Your task to perform on an android device: change the clock style Image 0: 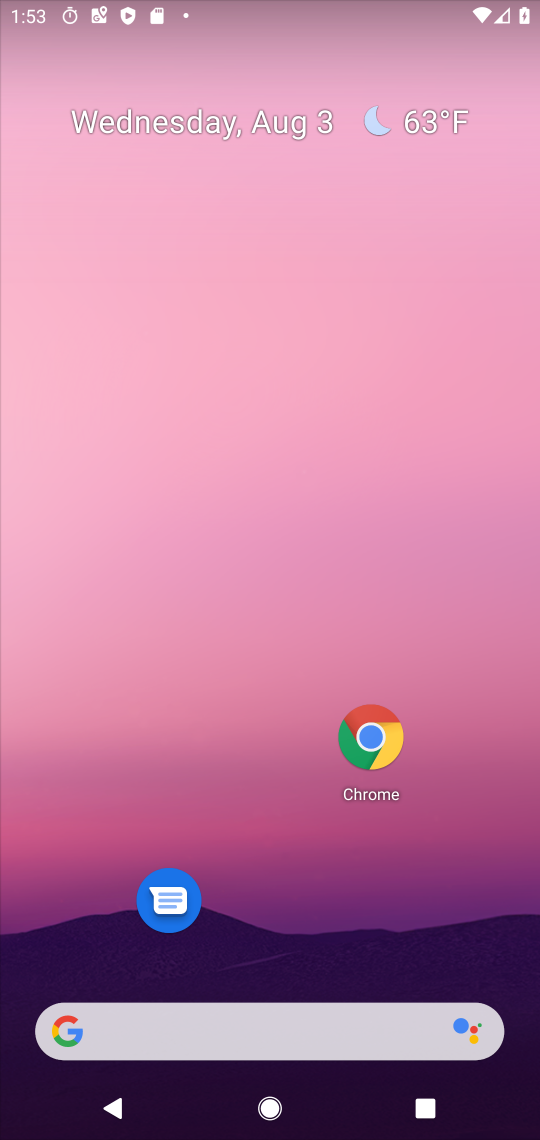
Step 0: click (371, 753)
Your task to perform on an android device: change the clock style Image 1: 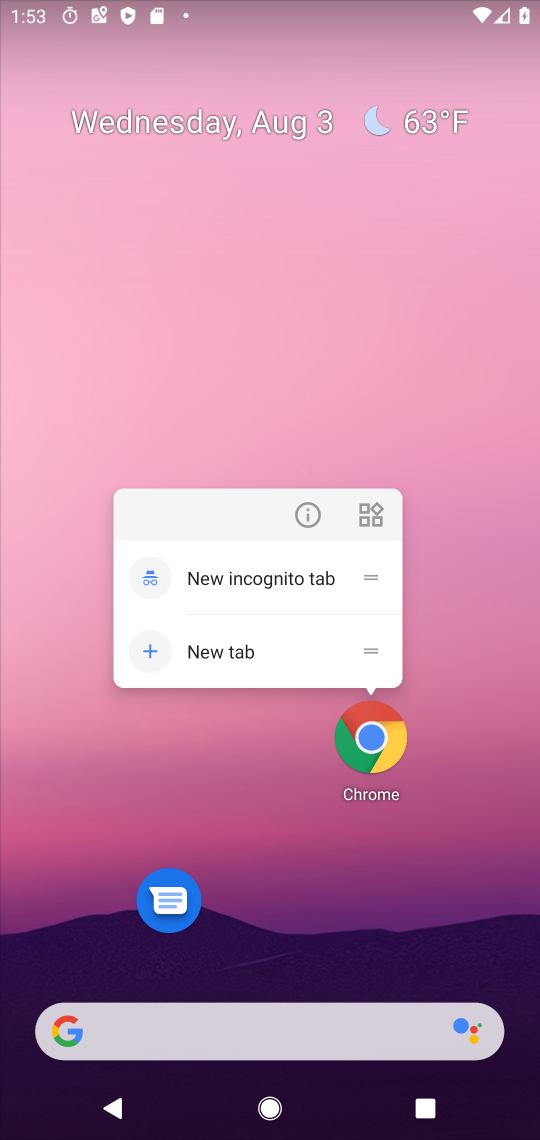
Step 1: click (340, 844)
Your task to perform on an android device: change the clock style Image 2: 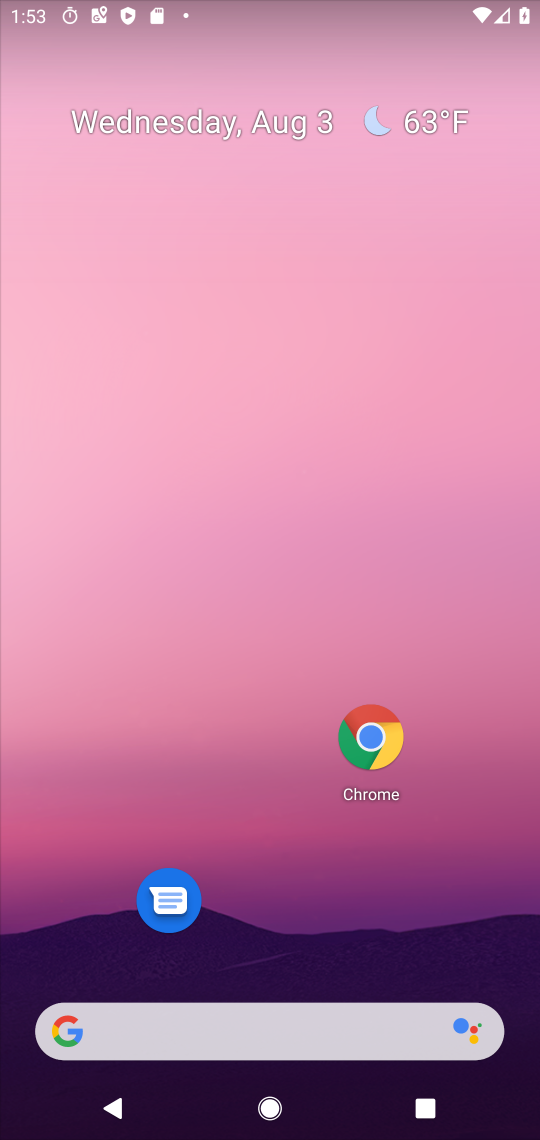
Step 2: drag from (240, 834) to (282, 199)
Your task to perform on an android device: change the clock style Image 3: 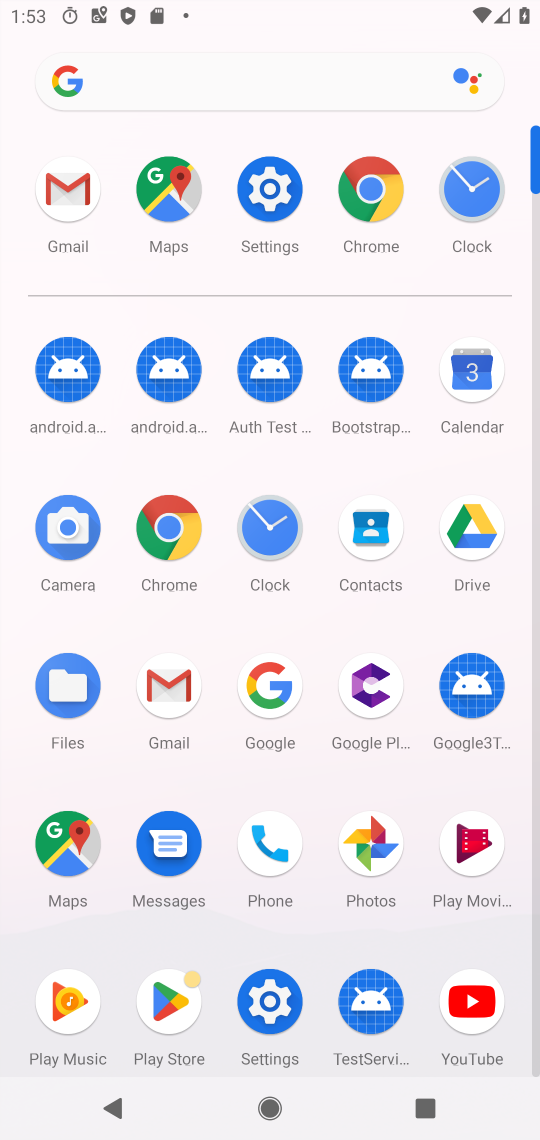
Step 3: click (268, 521)
Your task to perform on an android device: change the clock style Image 4: 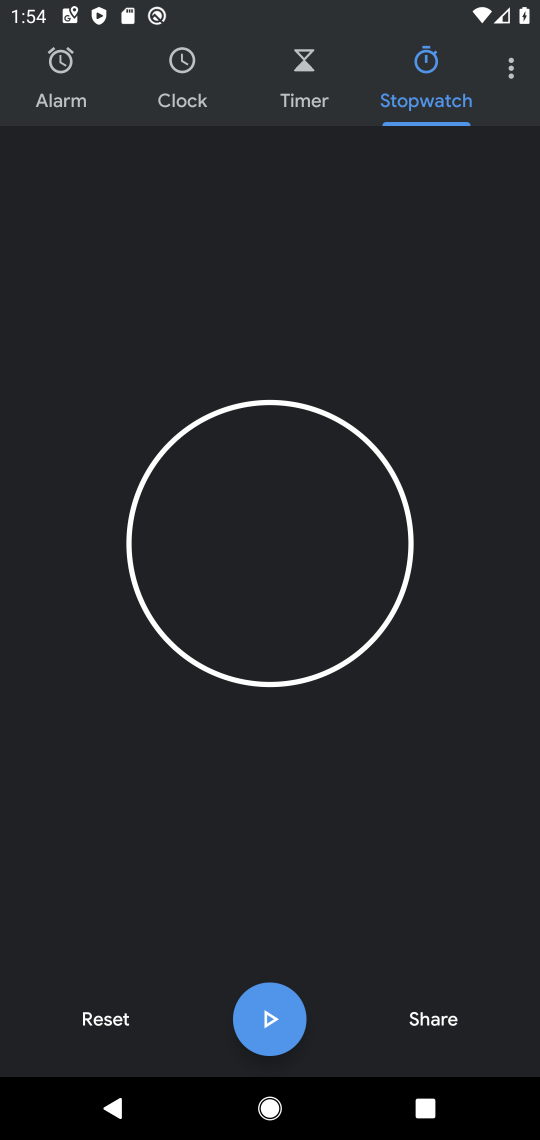
Step 4: click (499, 57)
Your task to perform on an android device: change the clock style Image 5: 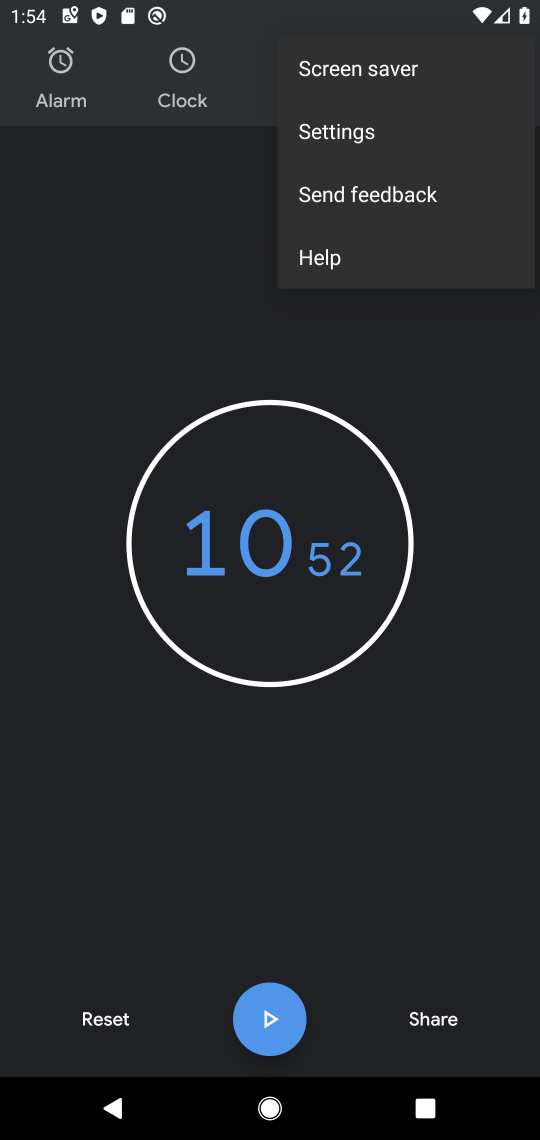
Step 5: click (373, 128)
Your task to perform on an android device: change the clock style Image 6: 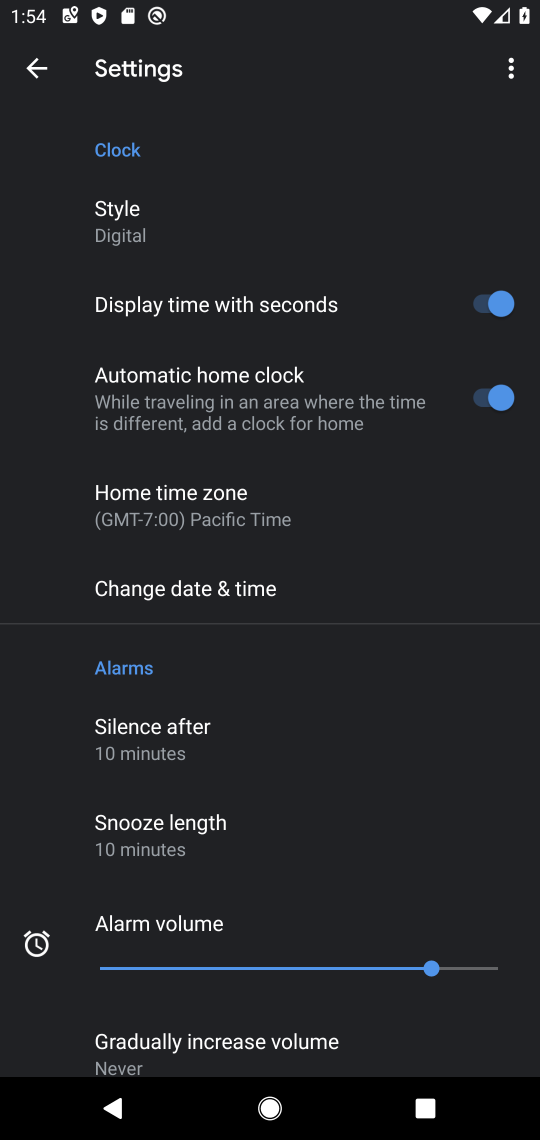
Step 6: click (155, 243)
Your task to perform on an android device: change the clock style Image 7: 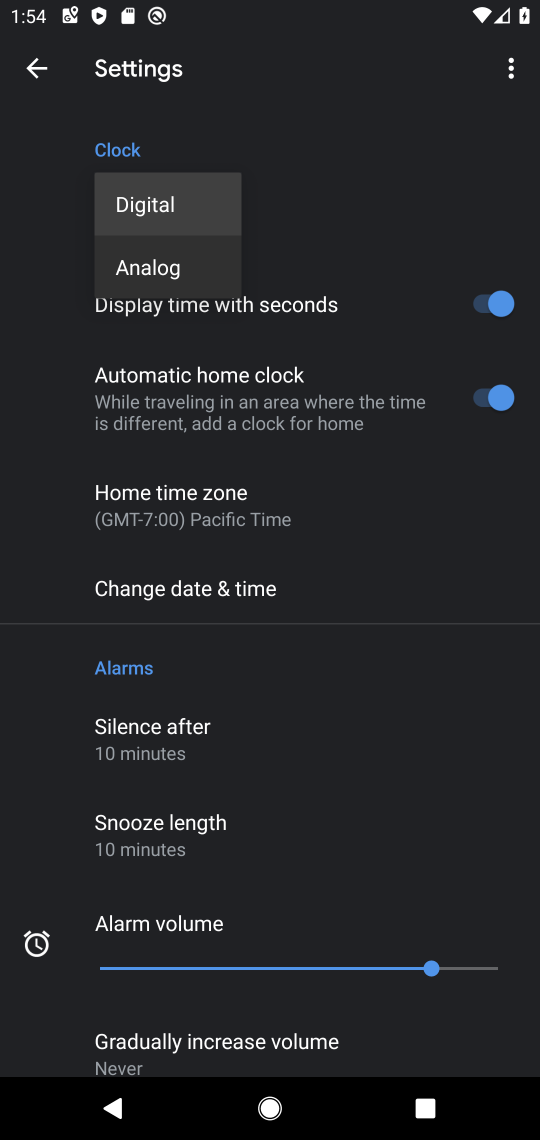
Step 7: click (147, 273)
Your task to perform on an android device: change the clock style Image 8: 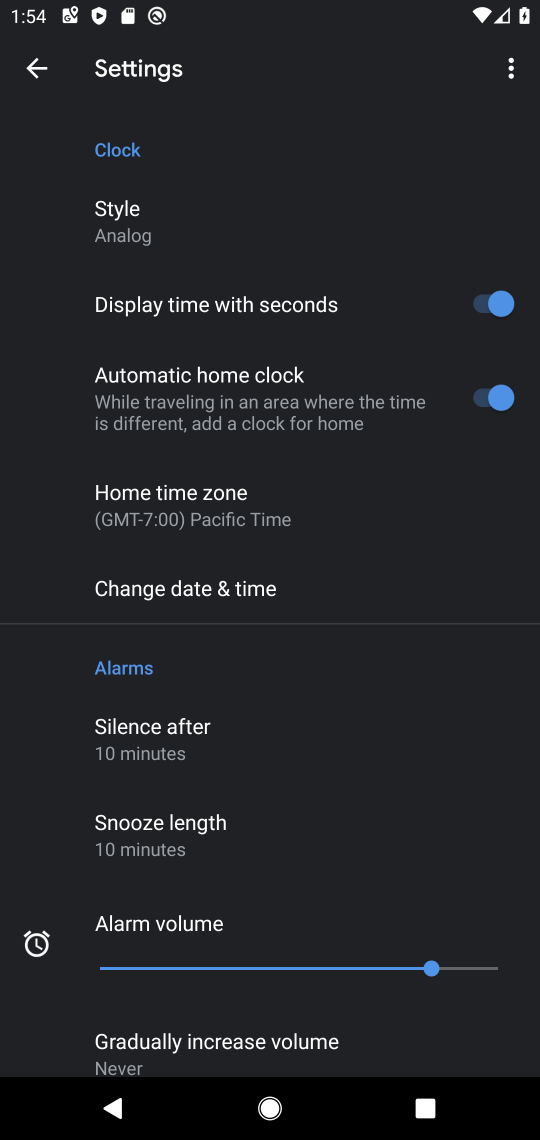
Step 8: task complete